Your task to perform on an android device: manage bookmarks in the chrome app Image 0: 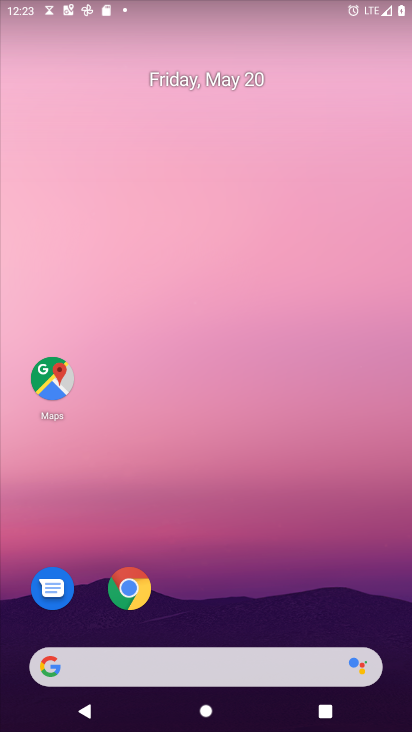
Step 0: click (137, 580)
Your task to perform on an android device: manage bookmarks in the chrome app Image 1: 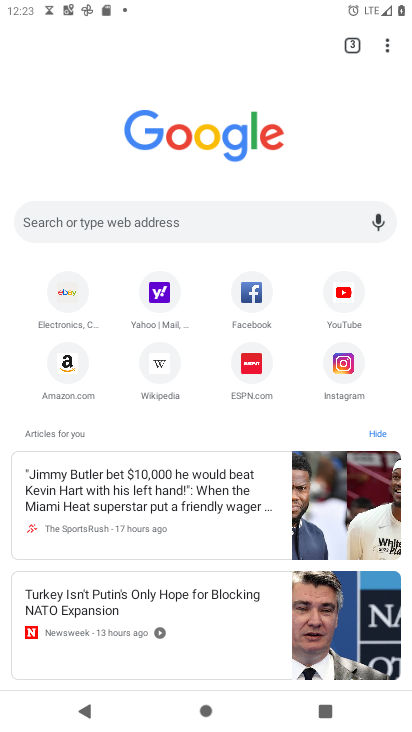
Step 1: click (386, 46)
Your task to perform on an android device: manage bookmarks in the chrome app Image 2: 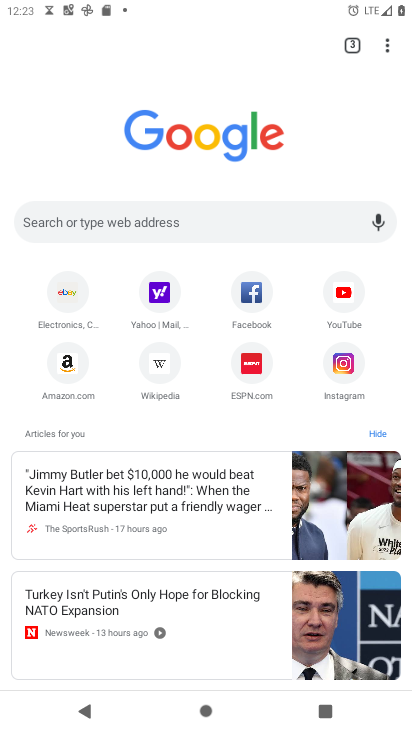
Step 2: click (388, 36)
Your task to perform on an android device: manage bookmarks in the chrome app Image 3: 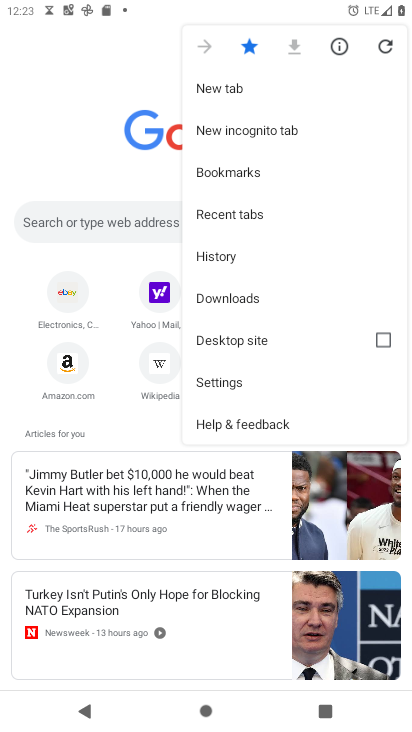
Step 3: click (247, 172)
Your task to perform on an android device: manage bookmarks in the chrome app Image 4: 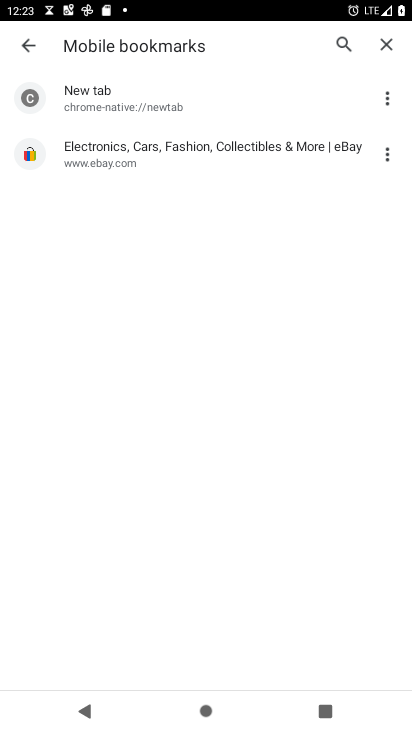
Step 4: click (215, 155)
Your task to perform on an android device: manage bookmarks in the chrome app Image 5: 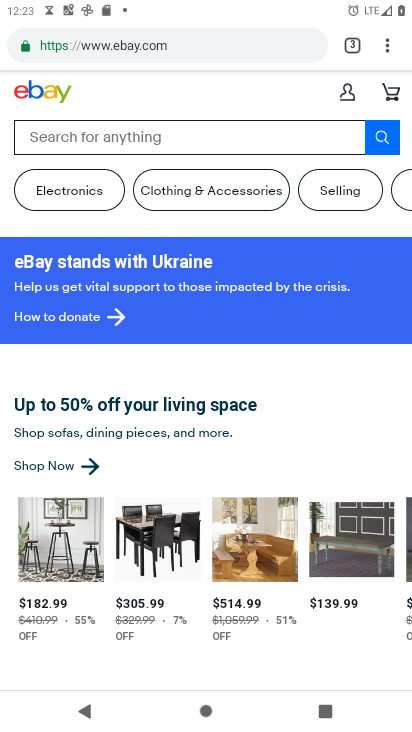
Step 5: task complete